Your task to perform on an android device: toggle wifi Image 0: 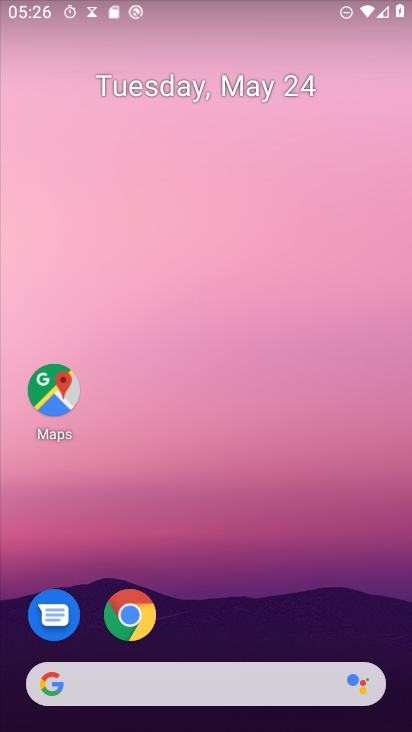
Step 0: drag from (118, 9) to (156, 490)
Your task to perform on an android device: toggle wifi Image 1: 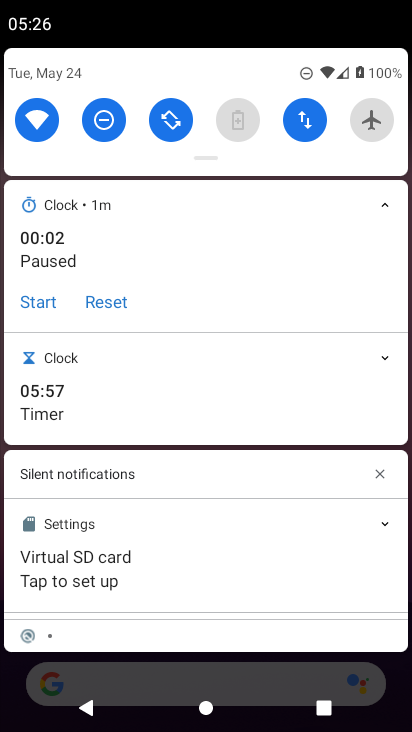
Step 1: click (46, 115)
Your task to perform on an android device: toggle wifi Image 2: 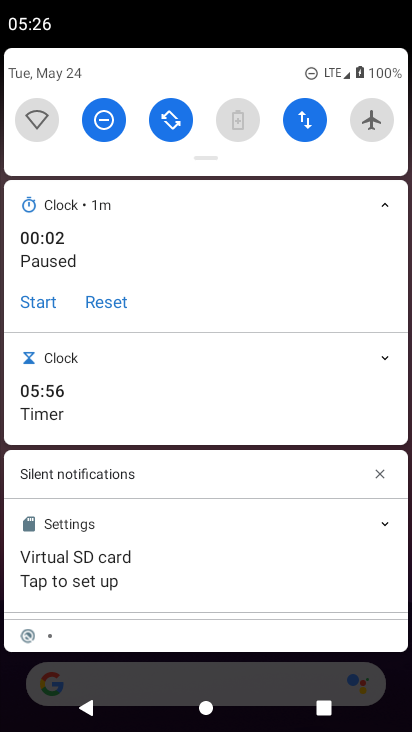
Step 2: task complete